Your task to perform on an android device: Open Google Maps Image 0: 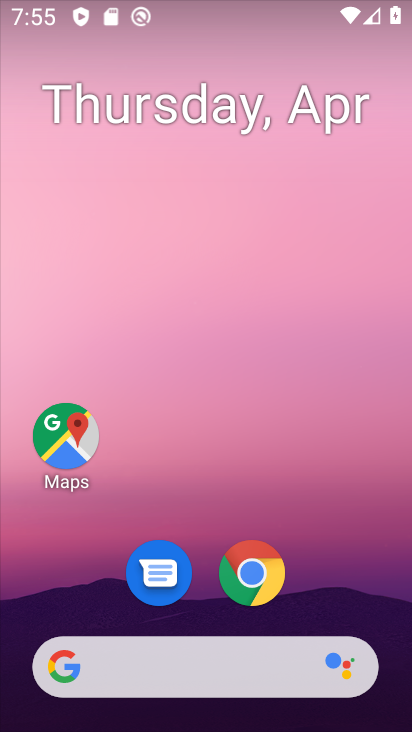
Step 0: drag from (205, 604) to (208, 182)
Your task to perform on an android device: Open Google Maps Image 1: 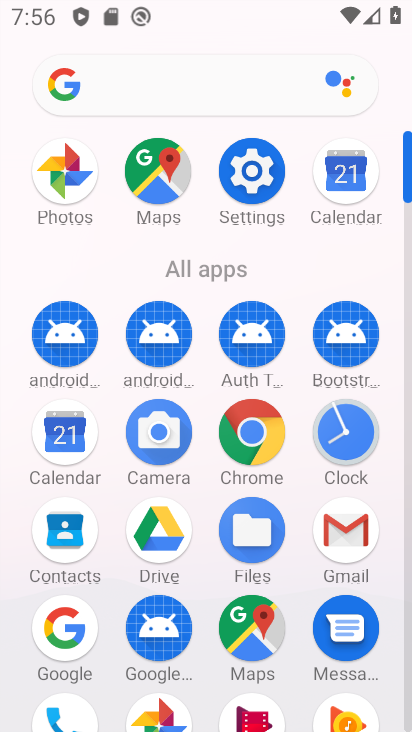
Step 1: click (241, 622)
Your task to perform on an android device: Open Google Maps Image 2: 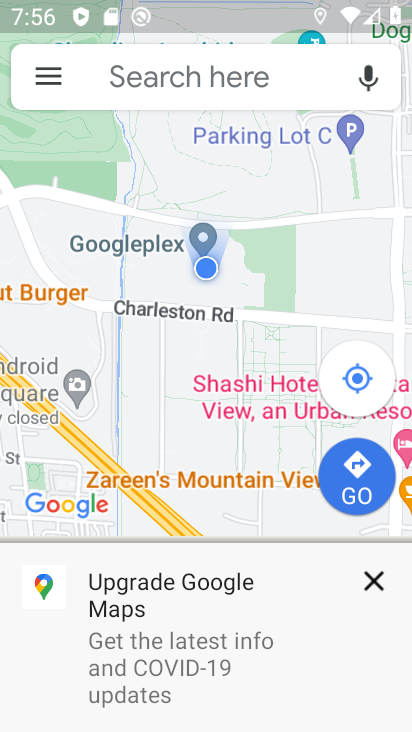
Step 2: task complete